Your task to perform on an android device: allow notifications from all sites in the chrome app Image 0: 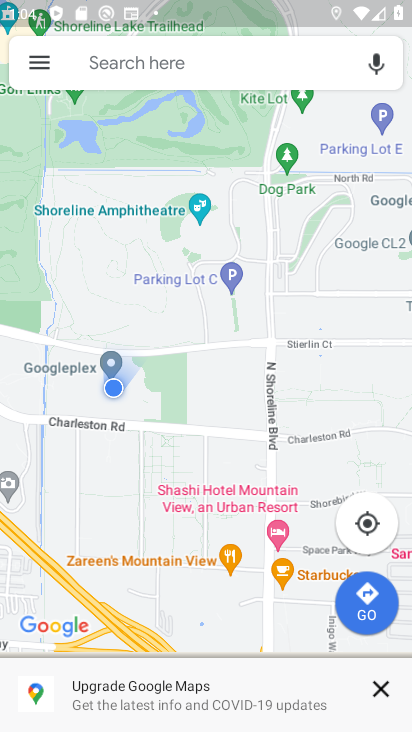
Step 0: press home button
Your task to perform on an android device: allow notifications from all sites in the chrome app Image 1: 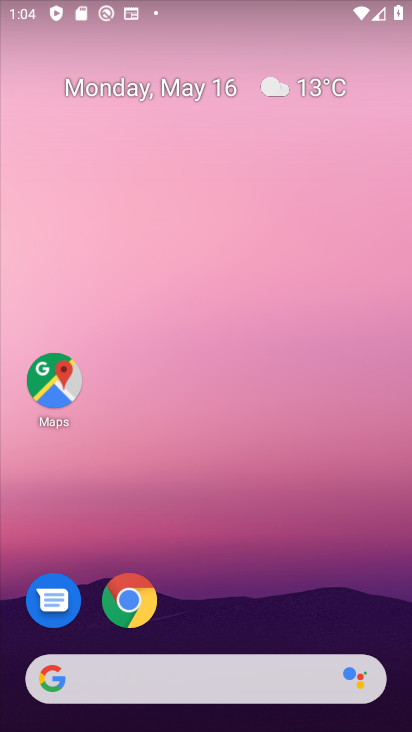
Step 1: drag from (206, 603) to (118, 116)
Your task to perform on an android device: allow notifications from all sites in the chrome app Image 2: 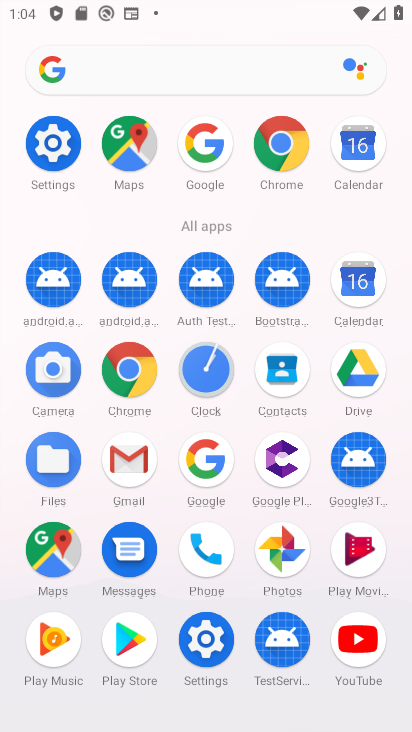
Step 2: click (131, 385)
Your task to perform on an android device: allow notifications from all sites in the chrome app Image 3: 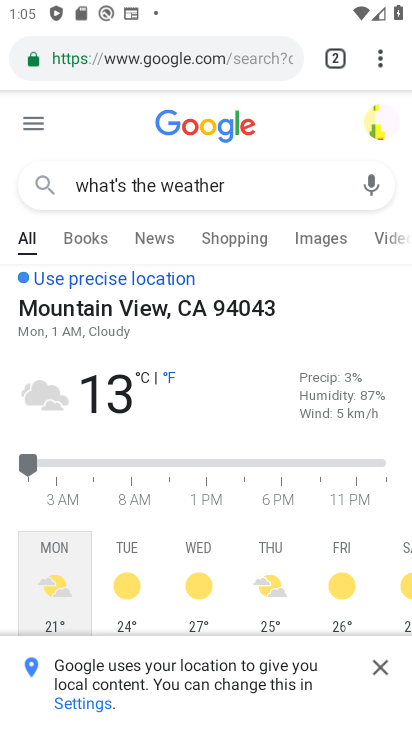
Step 3: click (385, 63)
Your task to perform on an android device: allow notifications from all sites in the chrome app Image 4: 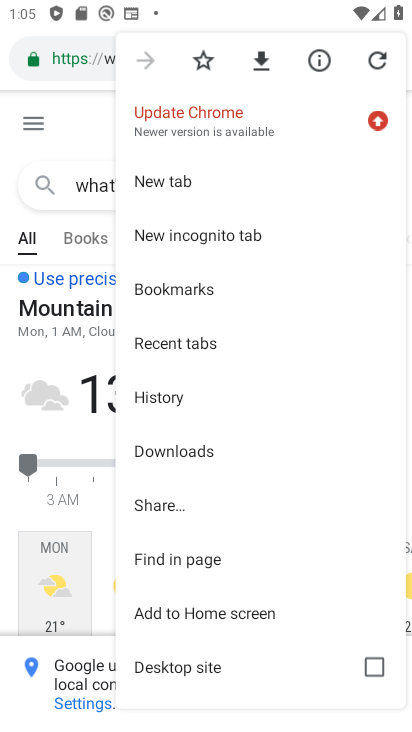
Step 4: drag from (198, 618) to (195, 228)
Your task to perform on an android device: allow notifications from all sites in the chrome app Image 5: 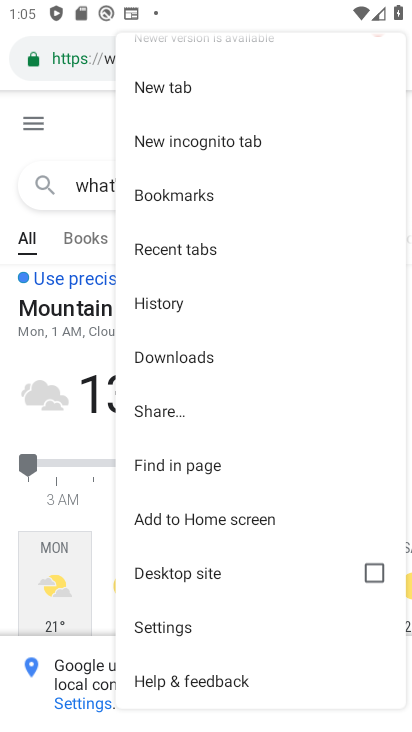
Step 5: click (165, 632)
Your task to perform on an android device: allow notifications from all sites in the chrome app Image 6: 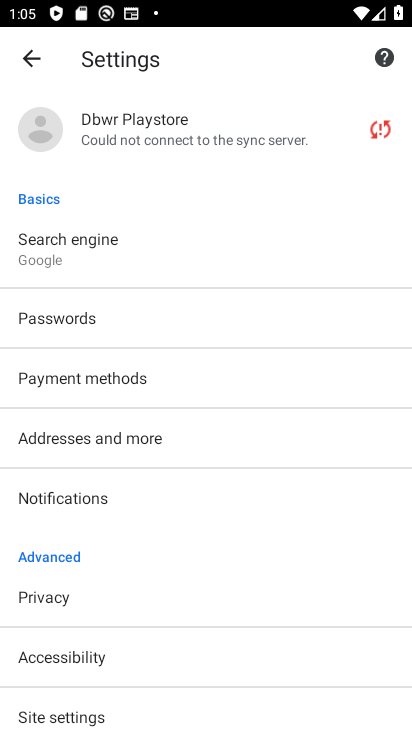
Step 6: click (58, 497)
Your task to perform on an android device: allow notifications from all sites in the chrome app Image 7: 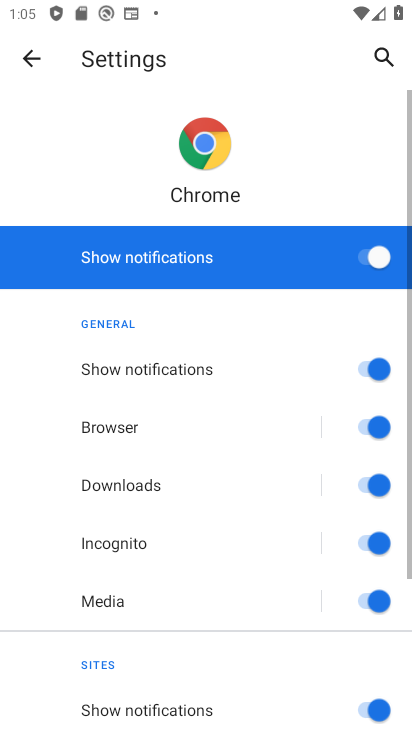
Step 7: task complete